Your task to perform on an android device: turn on data saver in the chrome app Image 0: 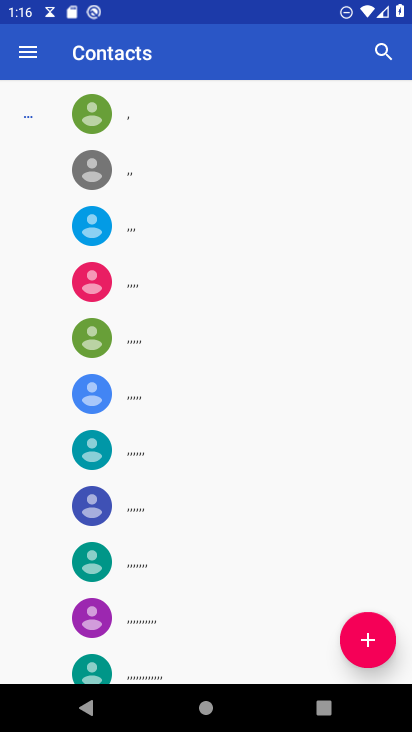
Step 0: press home button
Your task to perform on an android device: turn on data saver in the chrome app Image 1: 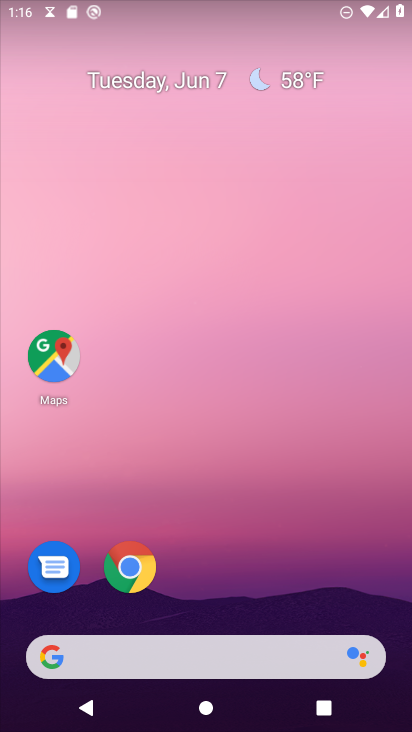
Step 1: click (125, 560)
Your task to perform on an android device: turn on data saver in the chrome app Image 2: 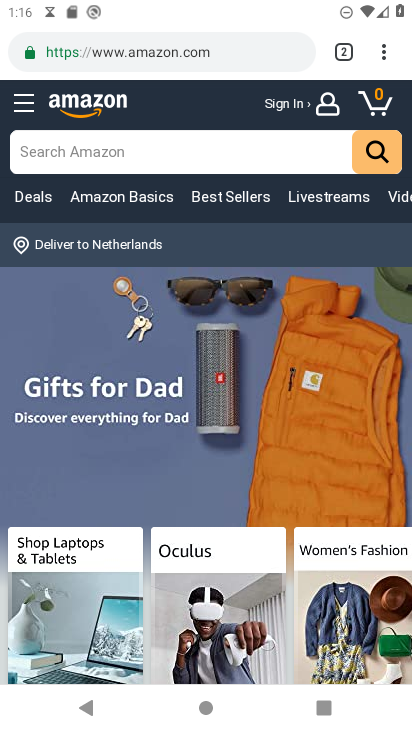
Step 2: click (384, 55)
Your task to perform on an android device: turn on data saver in the chrome app Image 3: 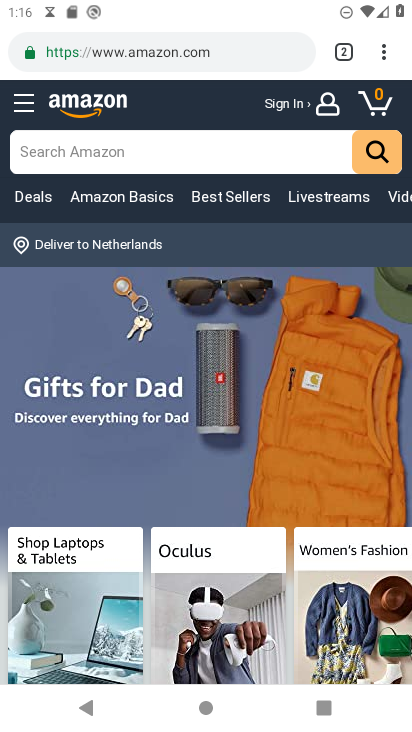
Step 3: click (383, 46)
Your task to perform on an android device: turn on data saver in the chrome app Image 4: 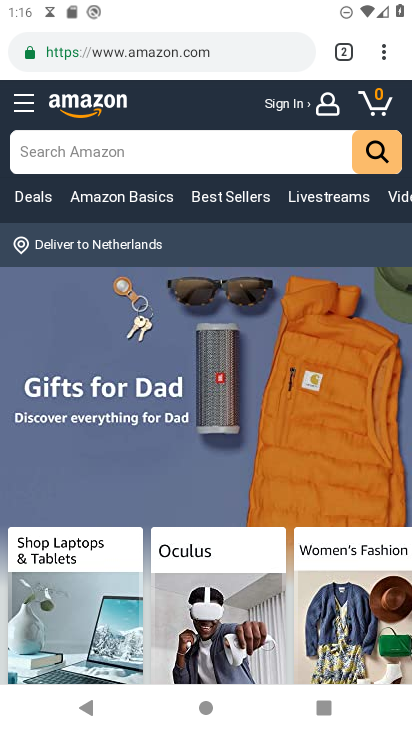
Step 4: click (383, 46)
Your task to perform on an android device: turn on data saver in the chrome app Image 5: 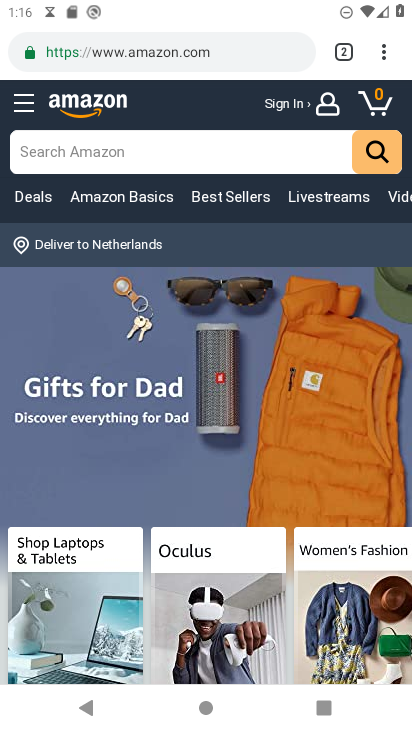
Step 5: click (383, 46)
Your task to perform on an android device: turn on data saver in the chrome app Image 6: 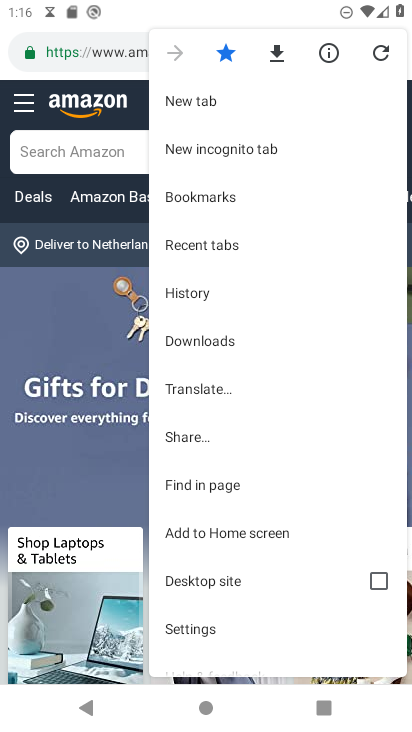
Step 6: click (170, 628)
Your task to perform on an android device: turn on data saver in the chrome app Image 7: 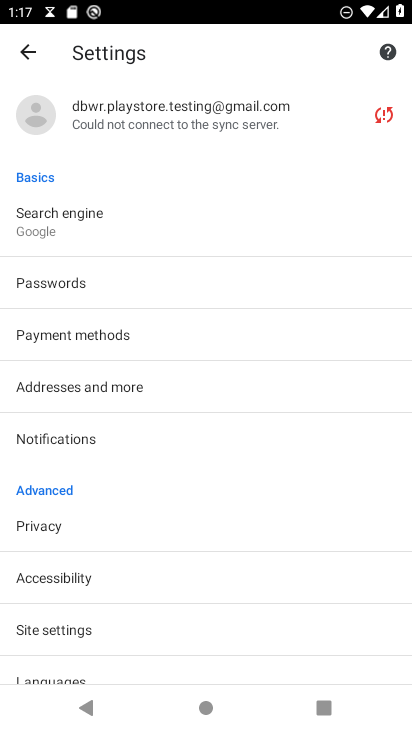
Step 7: drag from (174, 624) to (178, 237)
Your task to perform on an android device: turn on data saver in the chrome app Image 8: 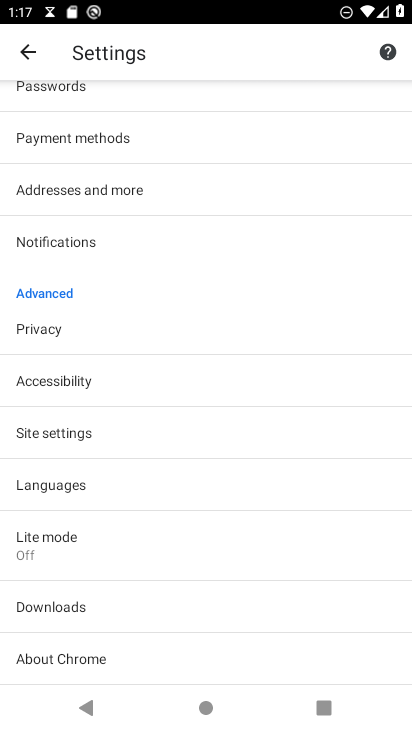
Step 8: click (57, 551)
Your task to perform on an android device: turn on data saver in the chrome app Image 9: 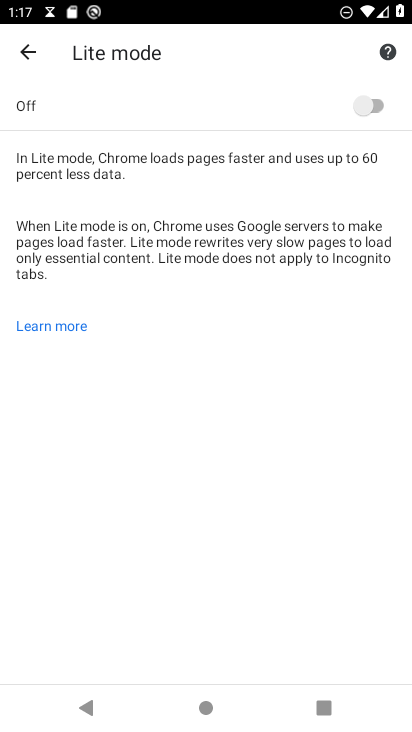
Step 9: click (370, 104)
Your task to perform on an android device: turn on data saver in the chrome app Image 10: 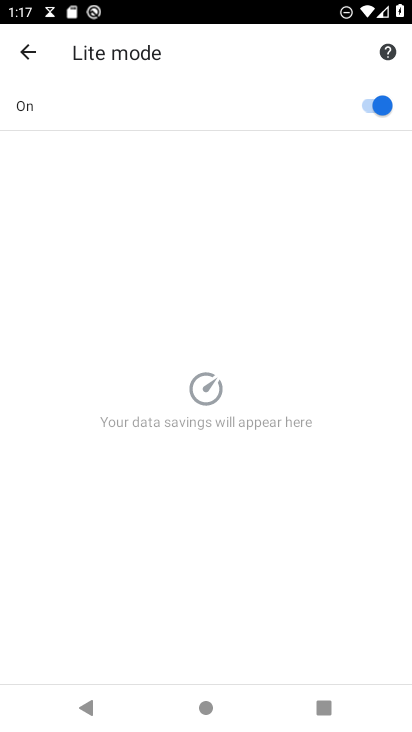
Step 10: task complete